Your task to perform on an android device: delete the emails in spam in the gmail app Image 0: 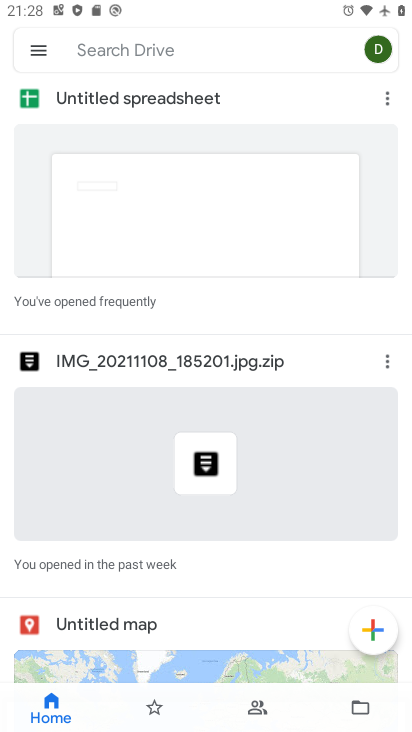
Step 0: press home button
Your task to perform on an android device: delete the emails in spam in the gmail app Image 1: 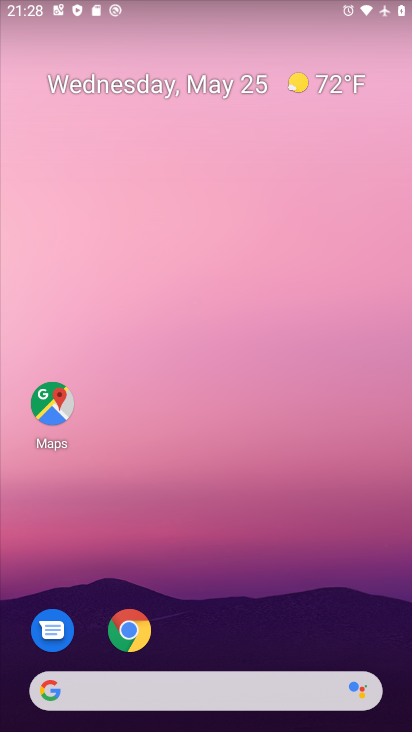
Step 1: drag from (220, 647) to (245, 299)
Your task to perform on an android device: delete the emails in spam in the gmail app Image 2: 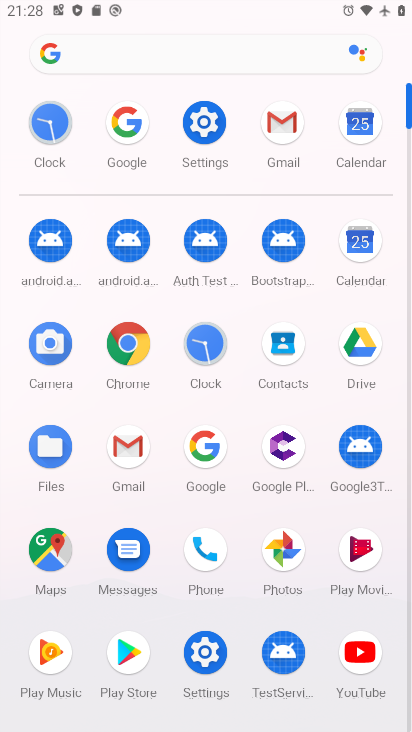
Step 2: click (269, 140)
Your task to perform on an android device: delete the emails in spam in the gmail app Image 3: 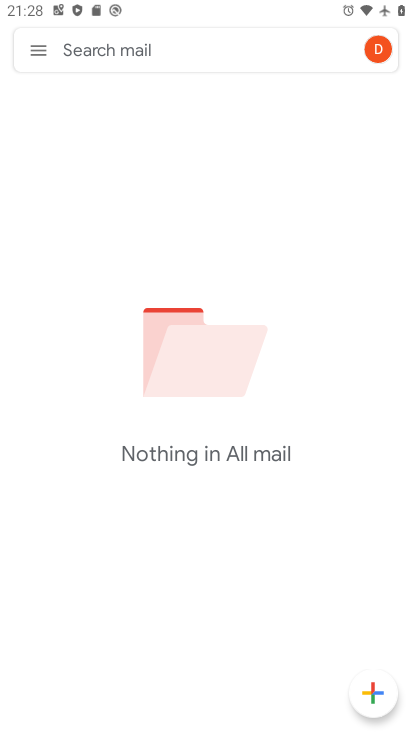
Step 3: click (43, 54)
Your task to perform on an android device: delete the emails in spam in the gmail app Image 4: 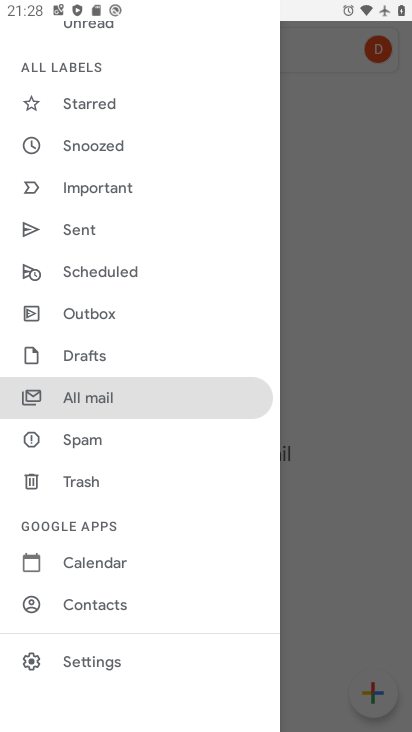
Step 4: click (123, 407)
Your task to perform on an android device: delete the emails in spam in the gmail app Image 5: 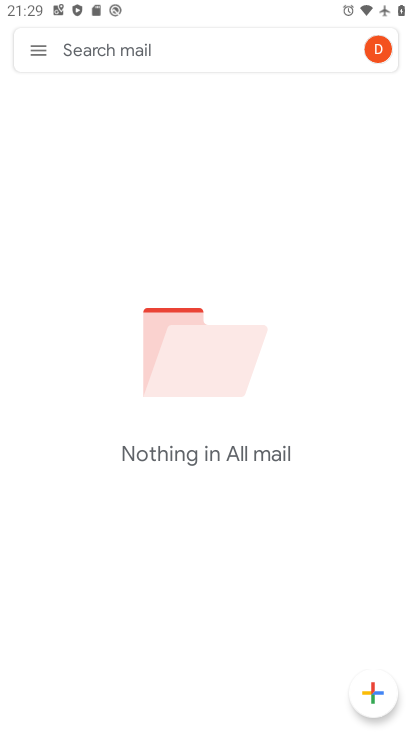
Step 5: task complete